Your task to perform on an android device: toggle airplane mode Image 0: 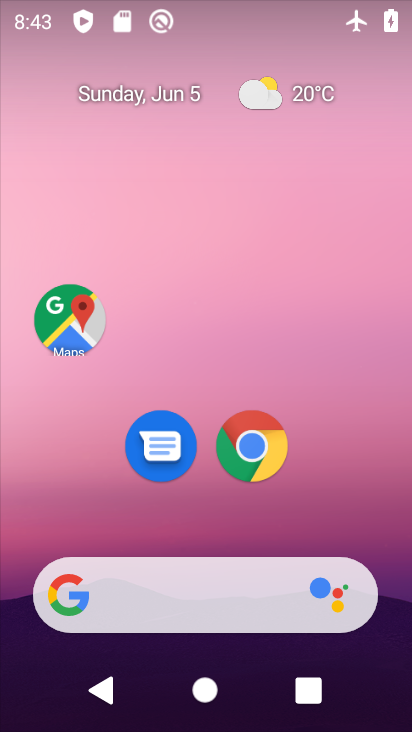
Step 0: drag from (201, 531) to (225, 130)
Your task to perform on an android device: toggle airplane mode Image 1: 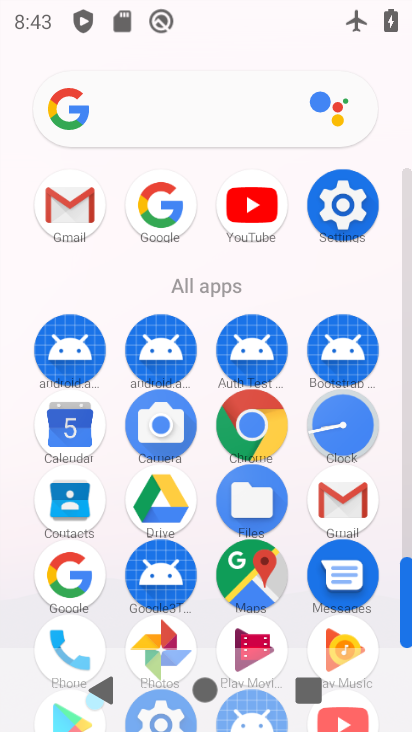
Step 1: click (335, 184)
Your task to perform on an android device: toggle airplane mode Image 2: 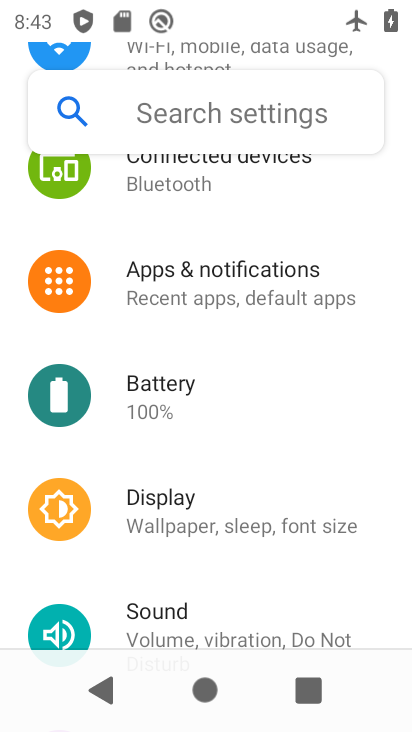
Step 2: drag from (233, 249) to (286, 570)
Your task to perform on an android device: toggle airplane mode Image 3: 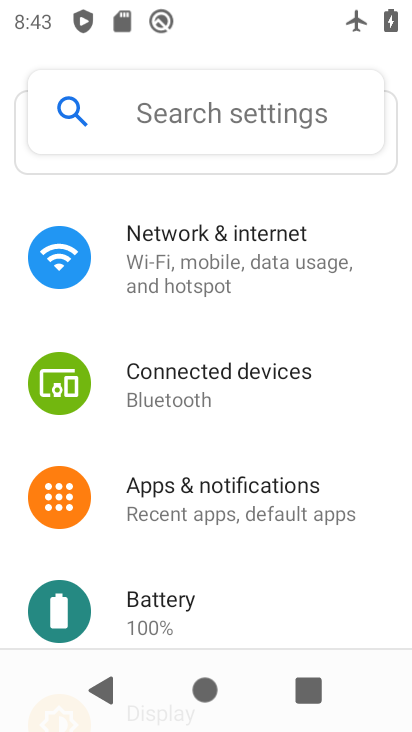
Step 3: drag from (269, 343) to (297, 556)
Your task to perform on an android device: toggle airplane mode Image 4: 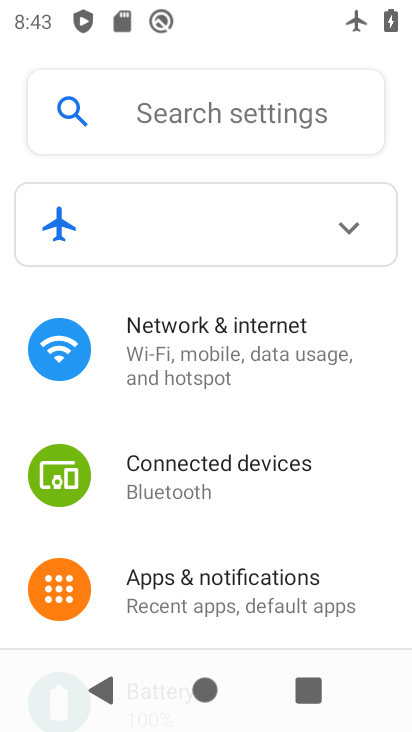
Step 4: click (226, 372)
Your task to perform on an android device: toggle airplane mode Image 5: 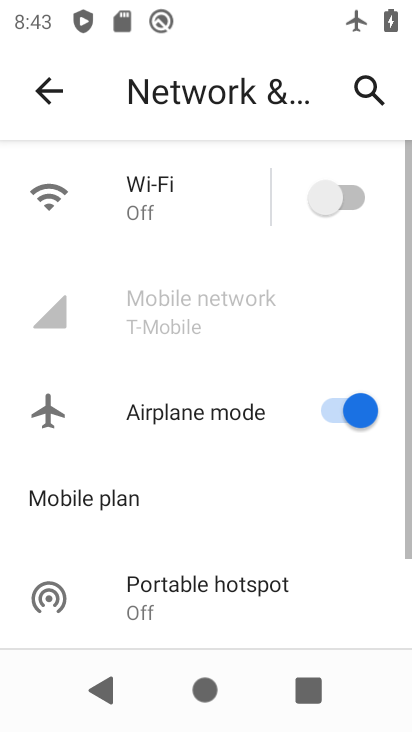
Step 5: click (336, 416)
Your task to perform on an android device: toggle airplane mode Image 6: 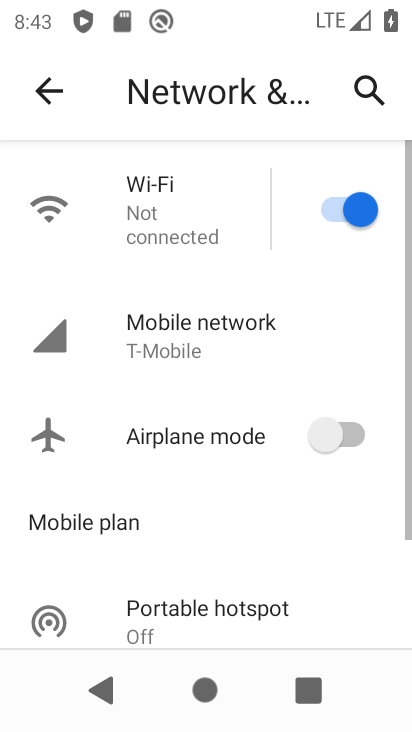
Step 6: task complete